Your task to perform on an android device: add a contact in the contacts app Image 0: 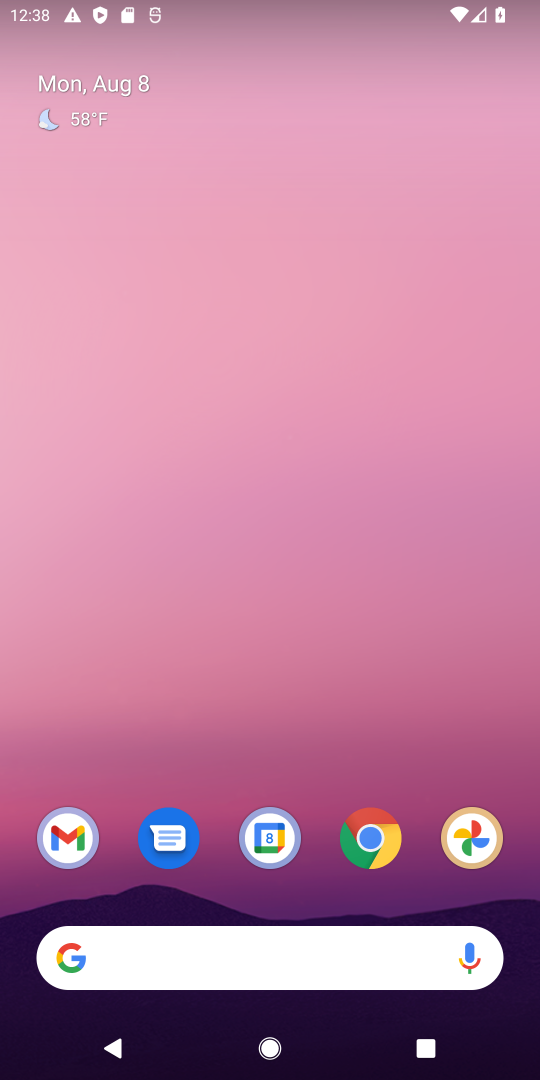
Step 0: press home button
Your task to perform on an android device: add a contact in the contacts app Image 1: 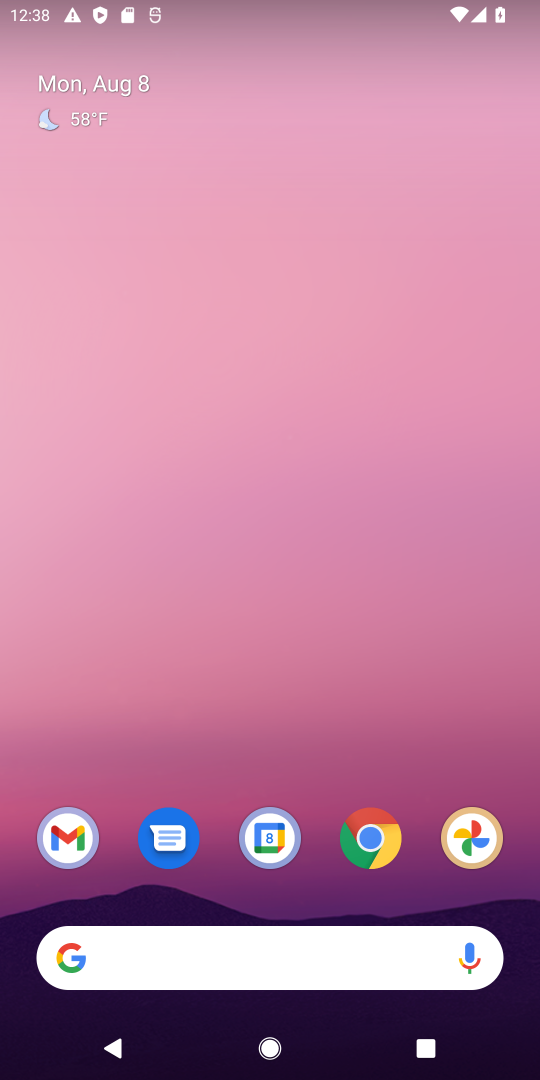
Step 1: drag from (222, 868) to (275, 228)
Your task to perform on an android device: add a contact in the contacts app Image 2: 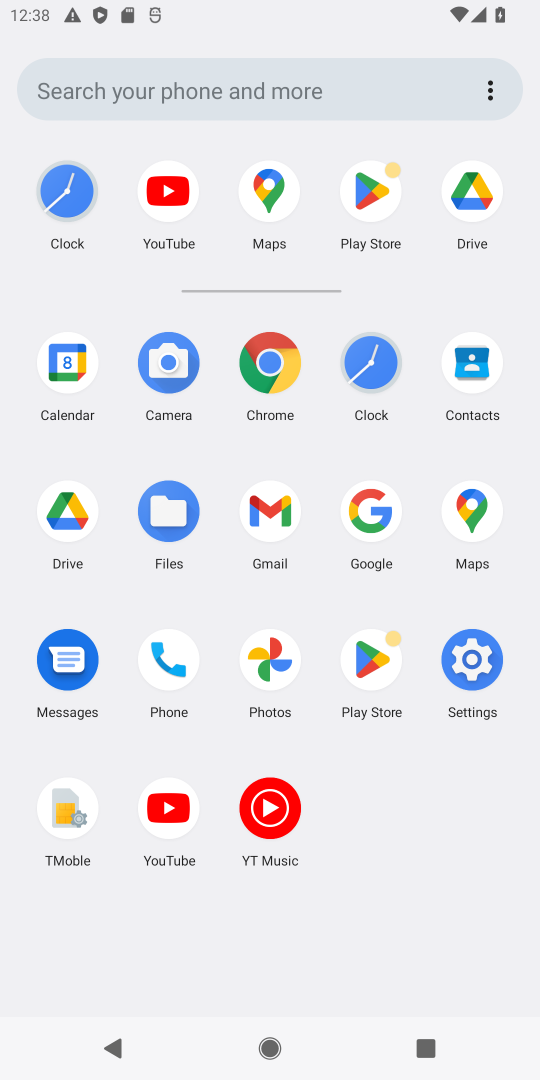
Step 2: click (473, 360)
Your task to perform on an android device: add a contact in the contacts app Image 3: 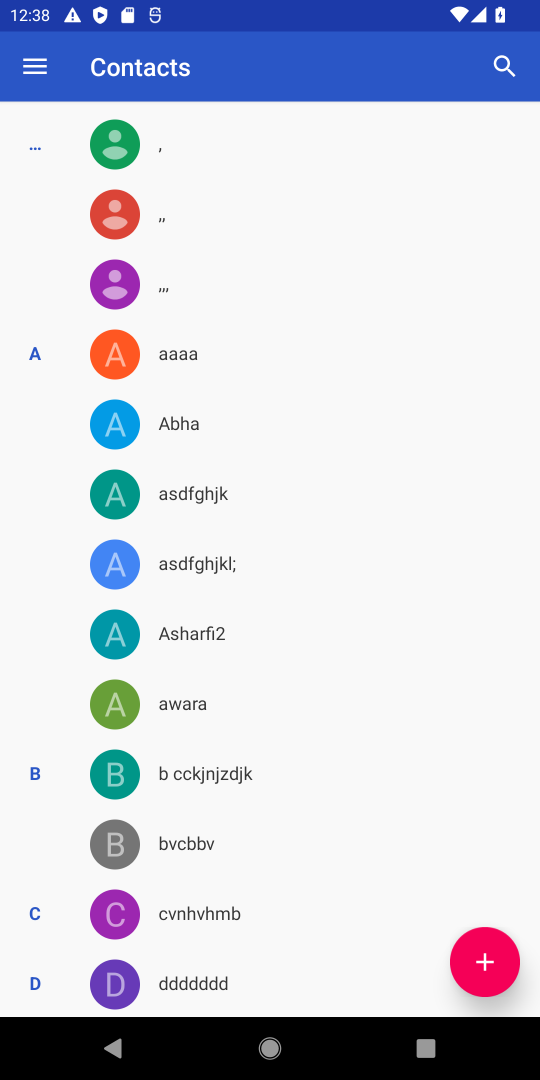
Step 3: click (487, 963)
Your task to perform on an android device: add a contact in the contacts app Image 4: 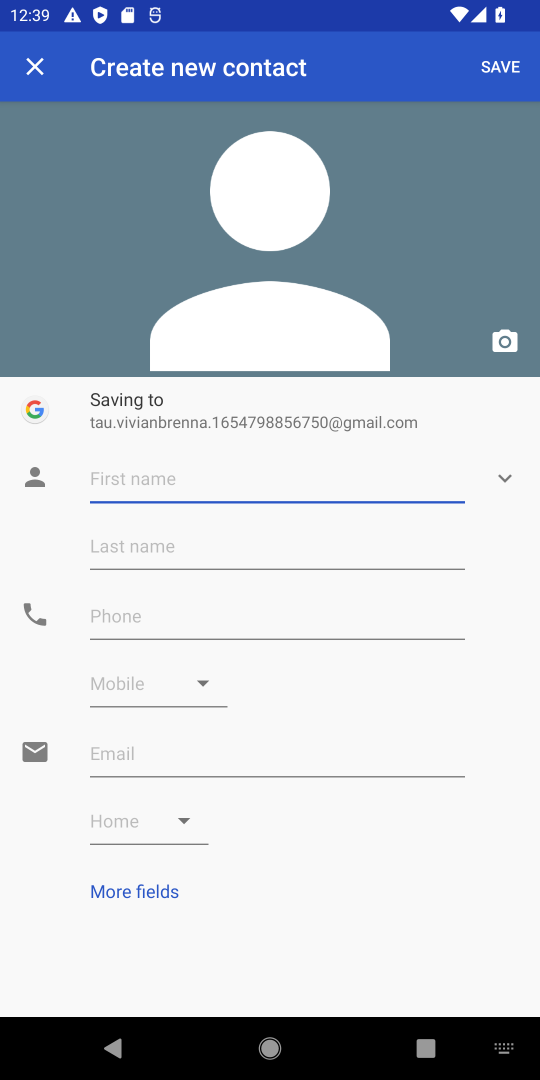
Step 4: type "hjhjhjh"
Your task to perform on an android device: add a contact in the contacts app Image 5: 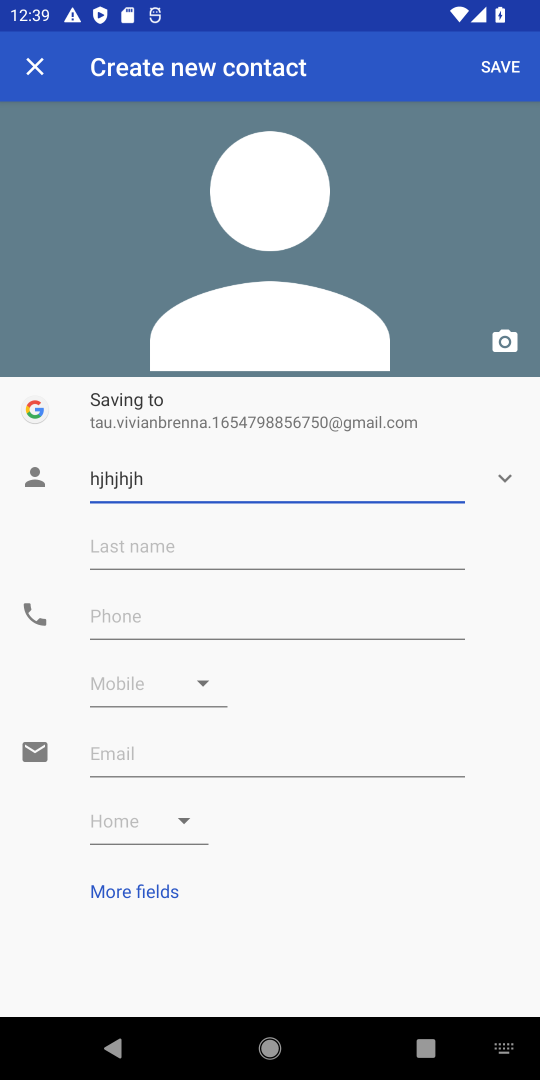
Step 5: click (245, 596)
Your task to perform on an android device: add a contact in the contacts app Image 6: 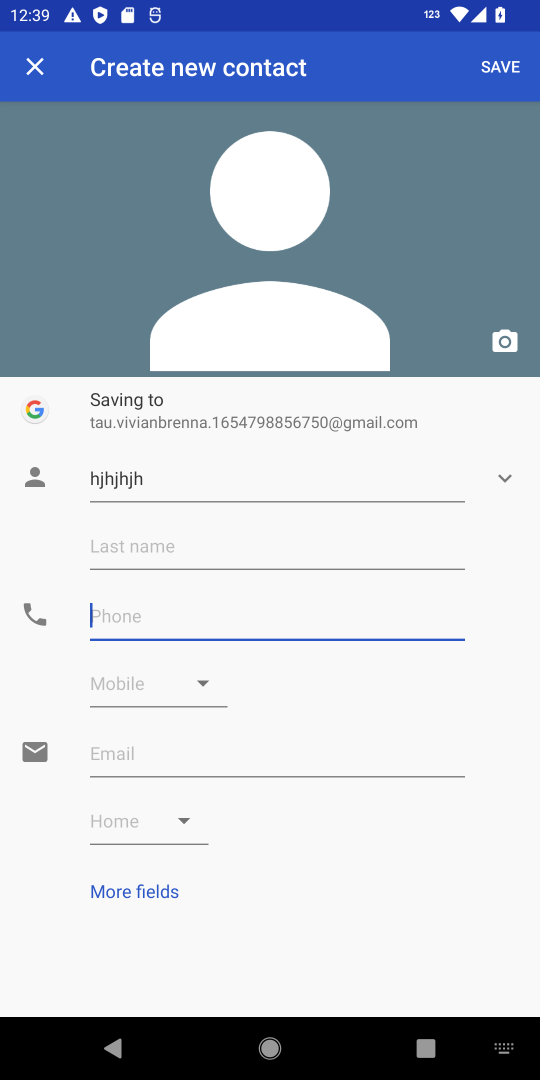
Step 6: type "66676676"
Your task to perform on an android device: add a contact in the contacts app Image 7: 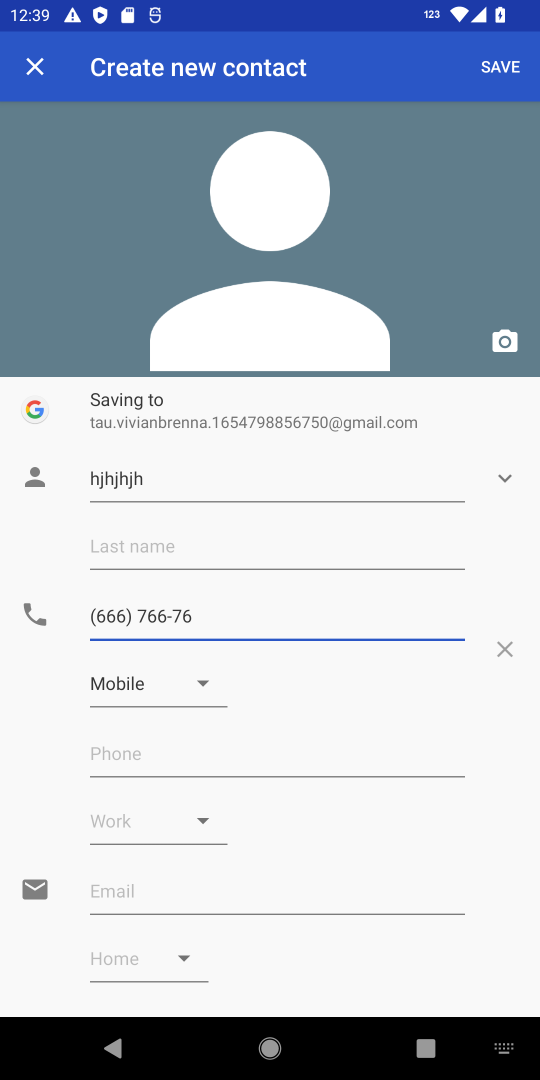
Step 7: click (501, 53)
Your task to perform on an android device: add a contact in the contacts app Image 8: 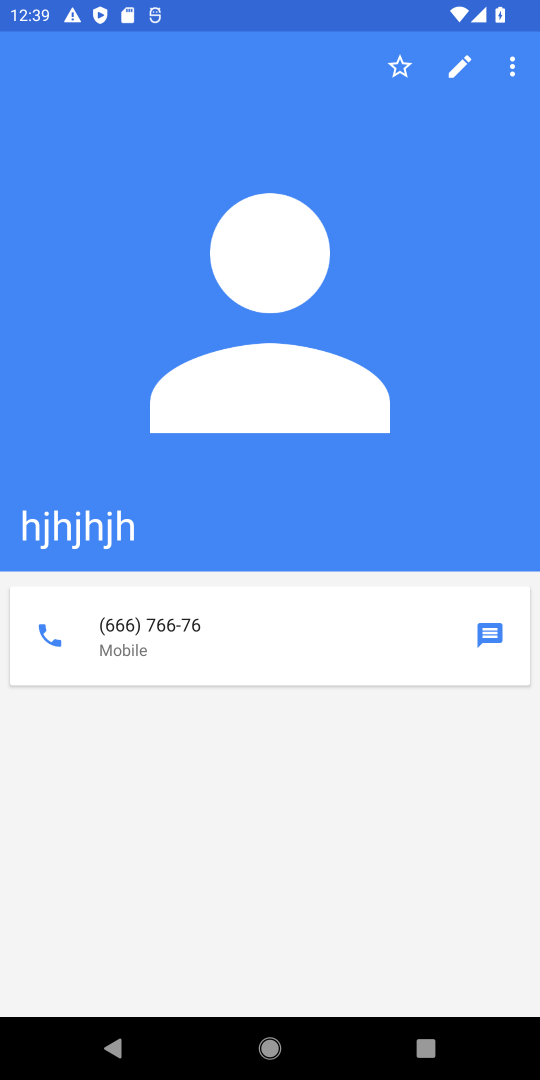
Step 8: task complete